Your task to perform on an android device: What is the news today? Image 0: 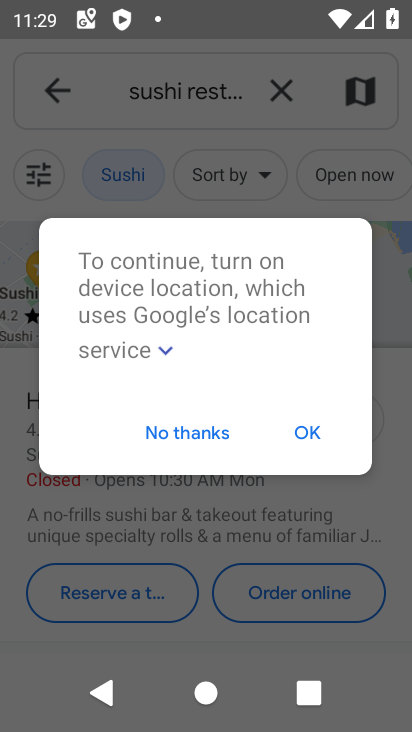
Step 0: press back button
Your task to perform on an android device: What is the news today? Image 1: 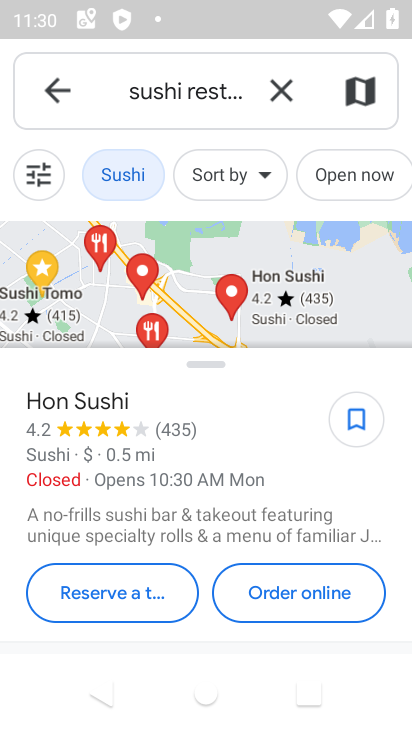
Step 1: press back button
Your task to perform on an android device: What is the news today? Image 2: 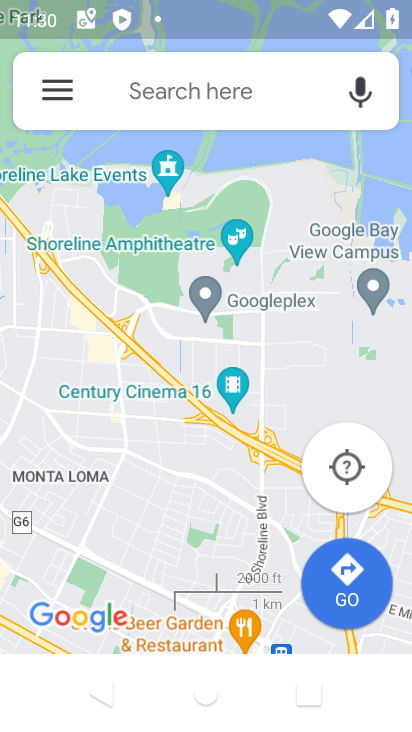
Step 2: press home button
Your task to perform on an android device: What is the news today? Image 3: 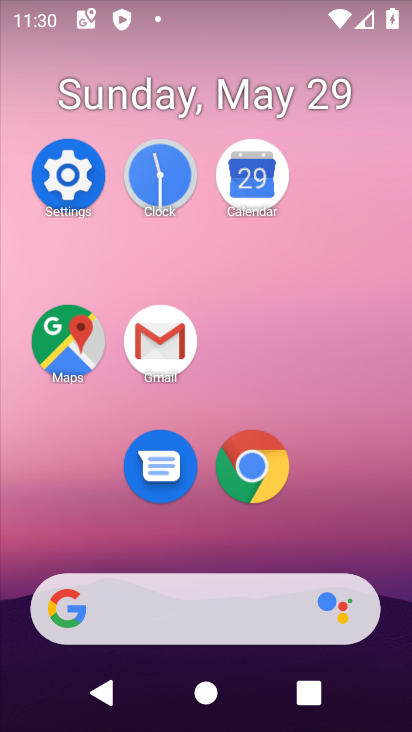
Step 3: drag from (253, 551) to (308, 158)
Your task to perform on an android device: What is the news today? Image 4: 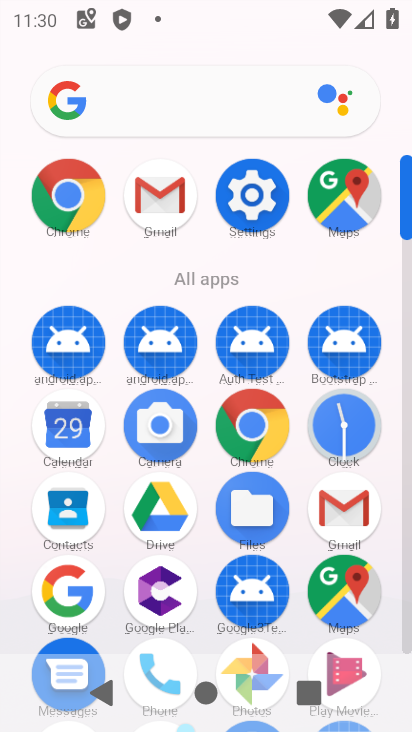
Step 4: drag from (56, 597) to (225, 317)
Your task to perform on an android device: What is the news today? Image 5: 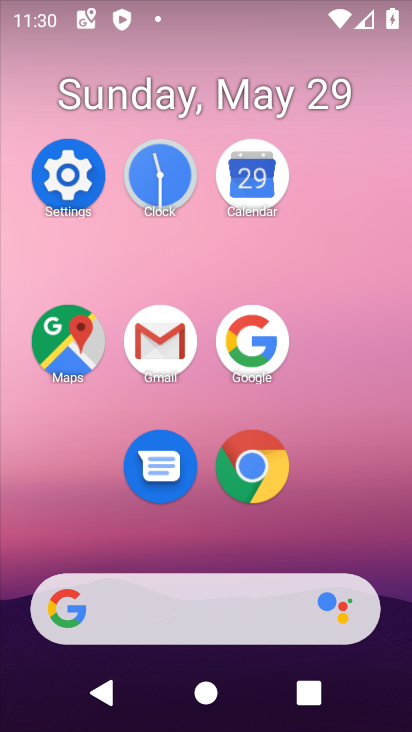
Step 5: click (248, 329)
Your task to perform on an android device: What is the news today? Image 6: 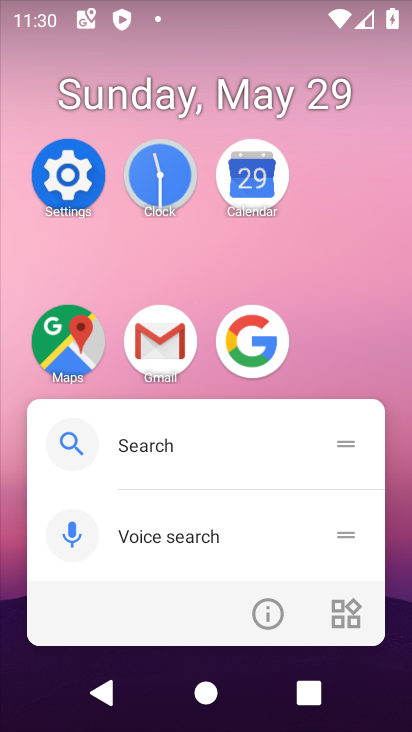
Step 6: click (248, 328)
Your task to perform on an android device: What is the news today? Image 7: 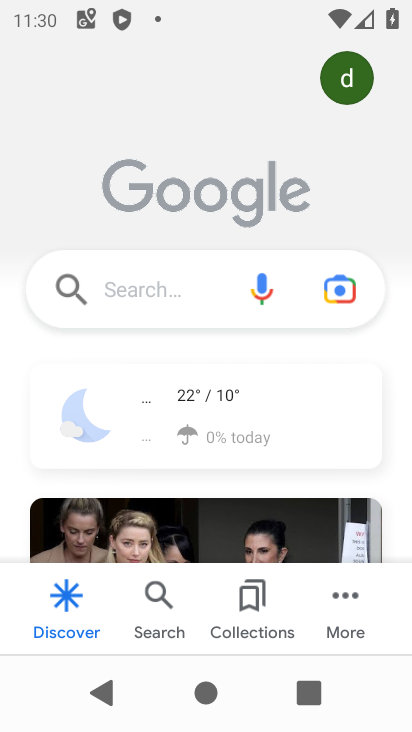
Step 7: click (183, 314)
Your task to perform on an android device: What is the news today? Image 8: 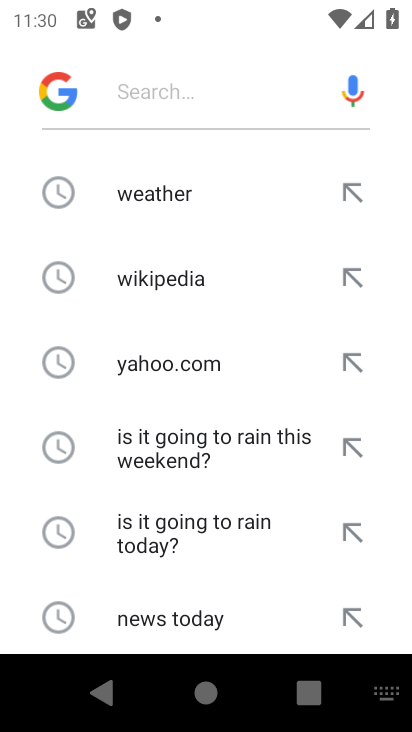
Step 8: click (195, 620)
Your task to perform on an android device: What is the news today? Image 9: 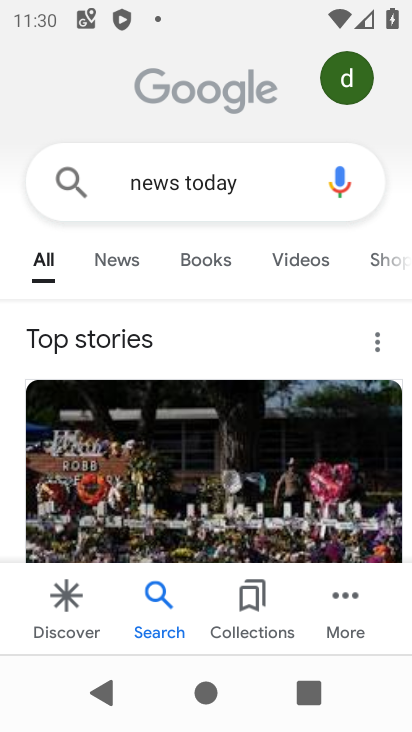
Step 9: task complete